Your task to perform on an android device: Go to Google Image 0: 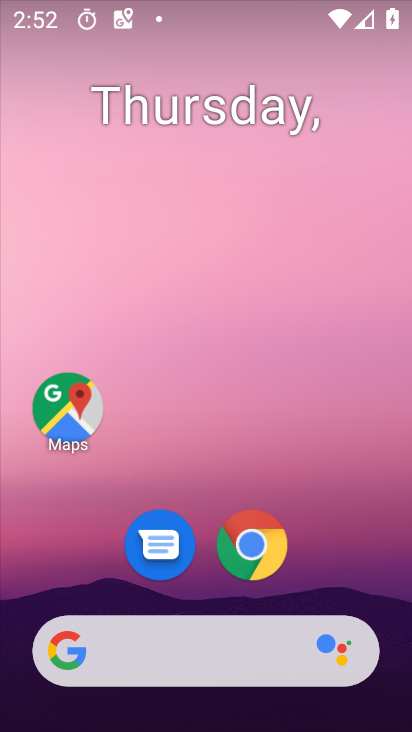
Step 0: drag from (189, 720) to (189, 122)
Your task to perform on an android device: Go to Google Image 1: 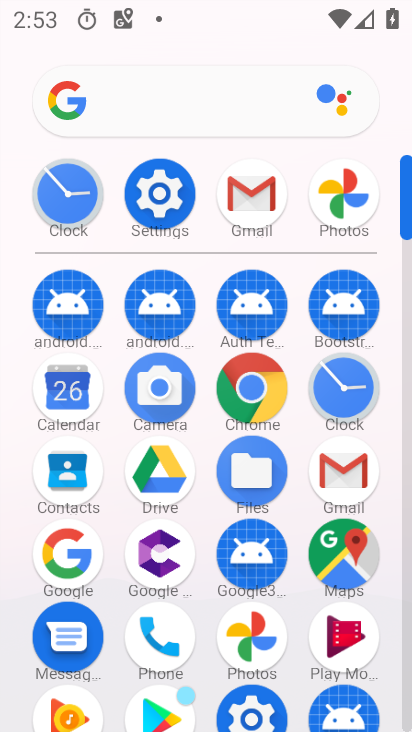
Step 1: click (66, 553)
Your task to perform on an android device: Go to Google Image 2: 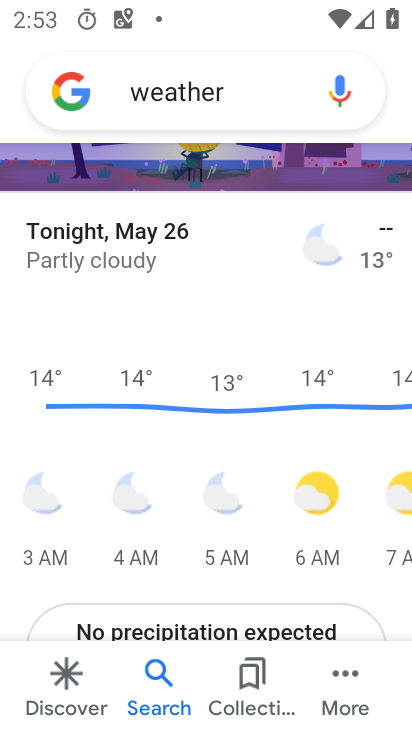
Step 2: task complete